Your task to perform on an android device: Go to notification settings Image 0: 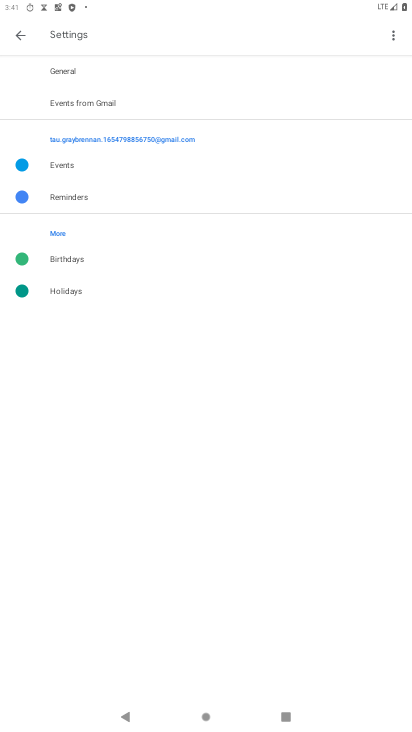
Step 0: press home button
Your task to perform on an android device: Go to notification settings Image 1: 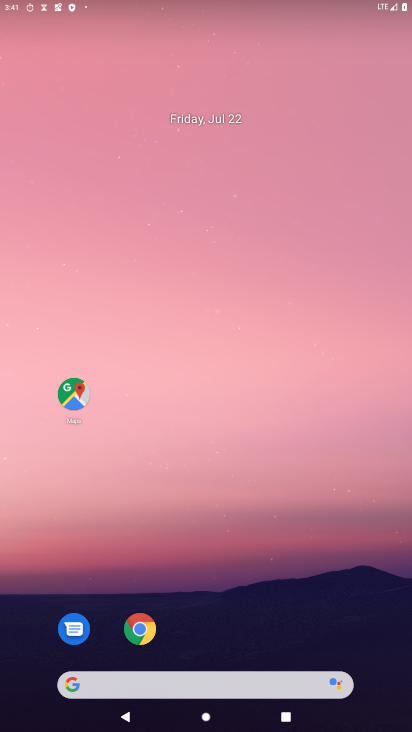
Step 1: drag from (297, 675) to (311, 25)
Your task to perform on an android device: Go to notification settings Image 2: 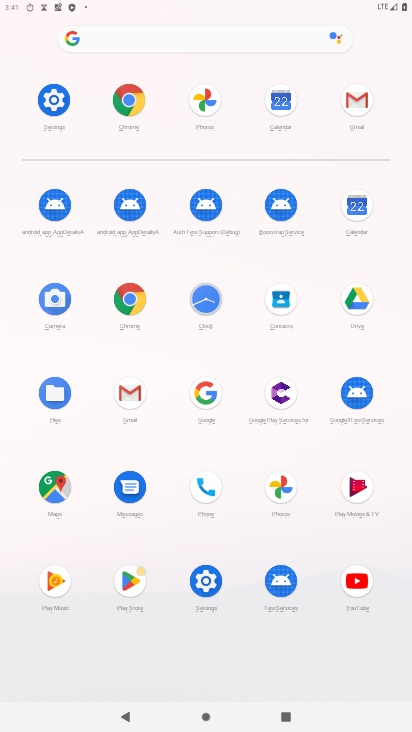
Step 2: click (53, 100)
Your task to perform on an android device: Go to notification settings Image 3: 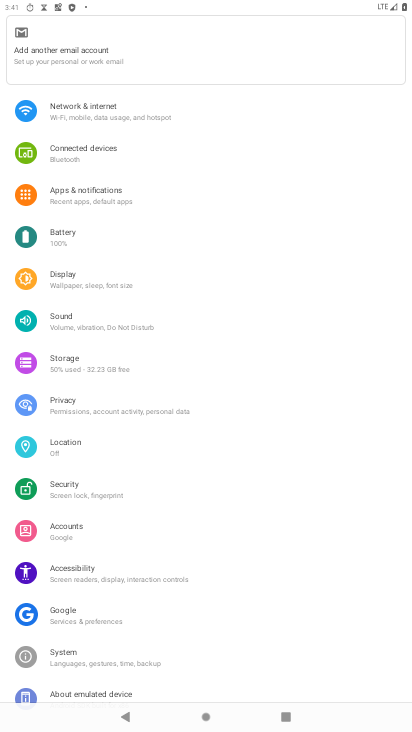
Step 3: click (81, 199)
Your task to perform on an android device: Go to notification settings Image 4: 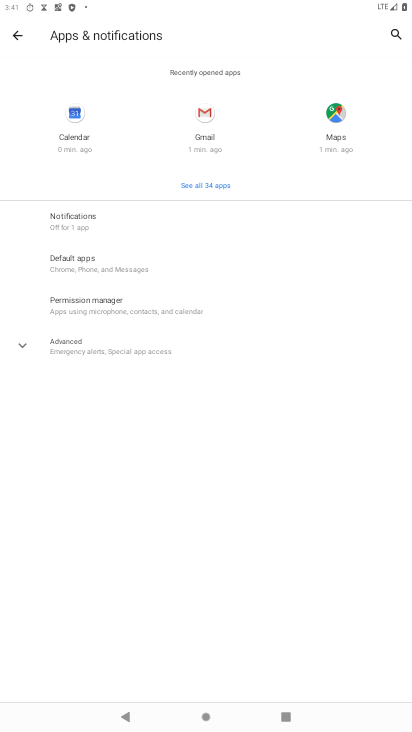
Step 4: click (92, 229)
Your task to perform on an android device: Go to notification settings Image 5: 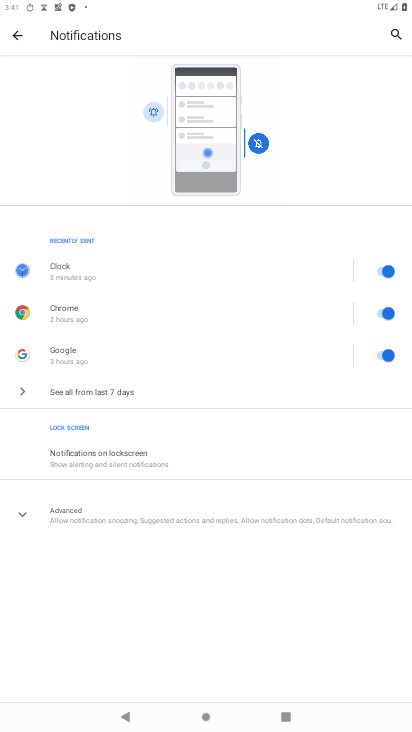
Step 5: task complete